Your task to perform on an android device: change keyboard looks Image 0: 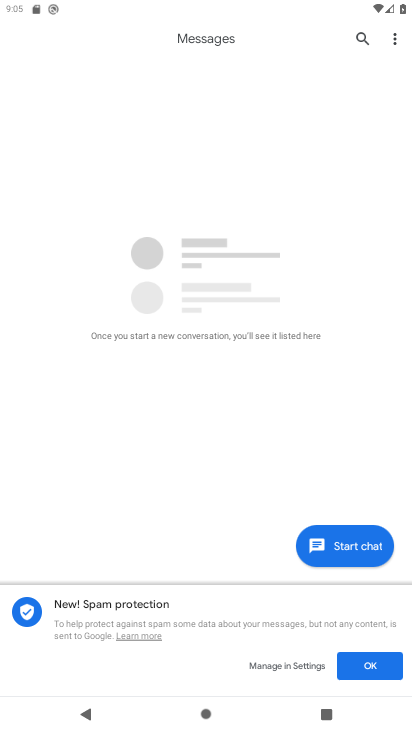
Step 0: press home button
Your task to perform on an android device: change keyboard looks Image 1: 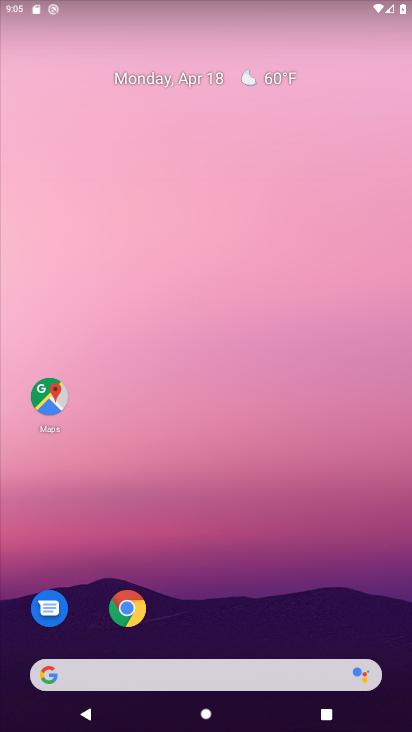
Step 1: drag from (371, 598) to (329, 67)
Your task to perform on an android device: change keyboard looks Image 2: 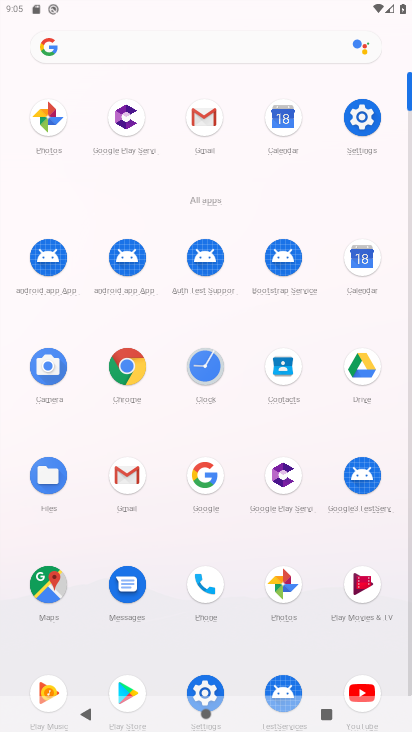
Step 2: click (367, 120)
Your task to perform on an android device: change keyboard looks Image 3: 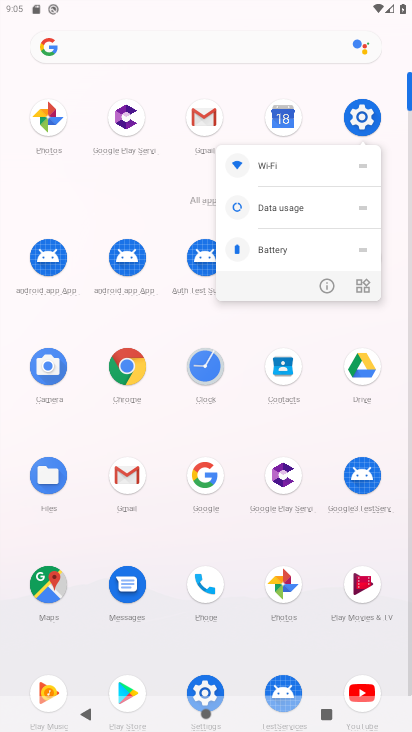
Step 3: click (367, 122)
Your task to perform on an android device: change keyboard looks Image 4: 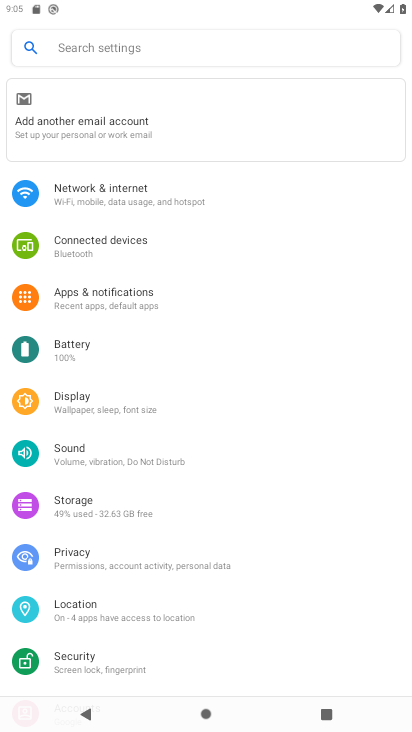
Step 4: drag from (217, 629) to (275, 249)
Your task to perform on an android device: change keyboard looks Image 5: 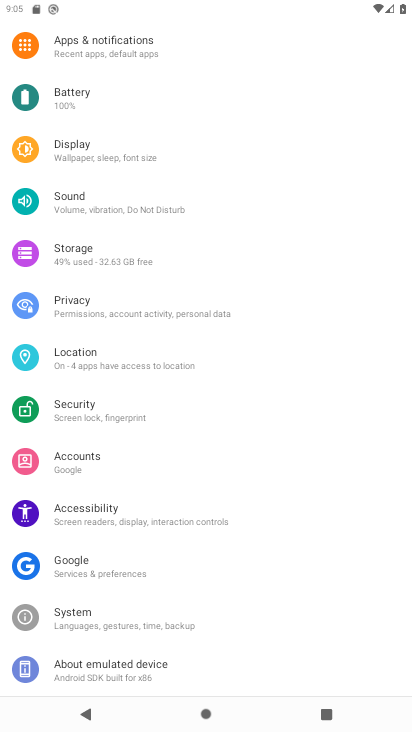
Step 5: click (108, 617)
Your task to perform on an android device: change keyboard looks Image 6: 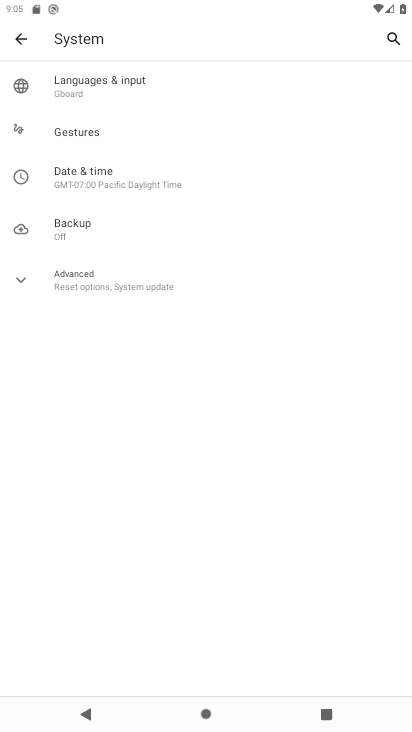
Step 6: click (117, 79)
Your task to perform on an android device: change keyboard looks Image 7: 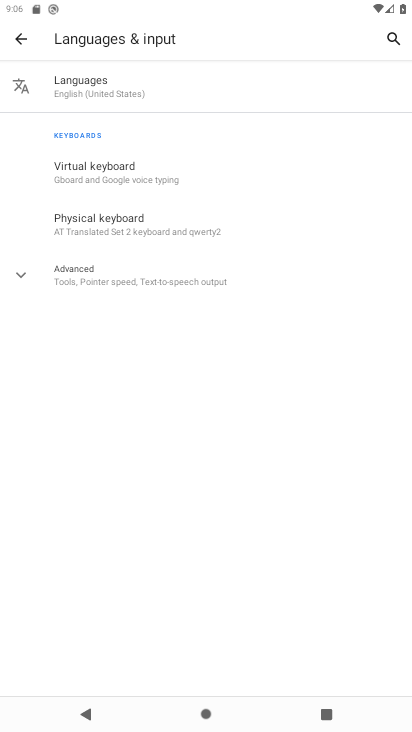
Step 7: click (137, 172)
Your task to perform on an android device: change keyboard looks Image 8: 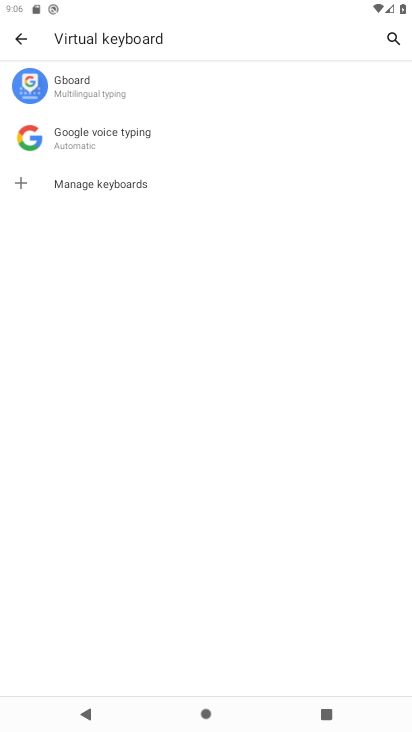
Step 8: click (118, 88)
Your task to perform on an android device: change keyboard looks Image 9: 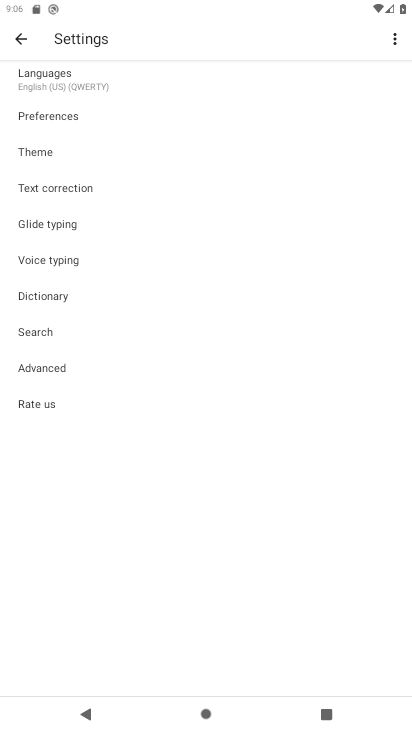
Step 9: click (55, 158)
Your task to perform on an android device: change keyboard looks Image 10: 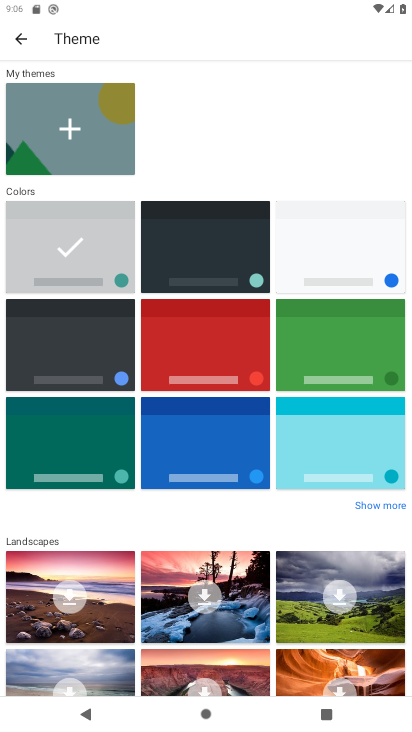
Step 10: click (212, 258)
Your task to perform on an android device: change keyboard looks Image 11: 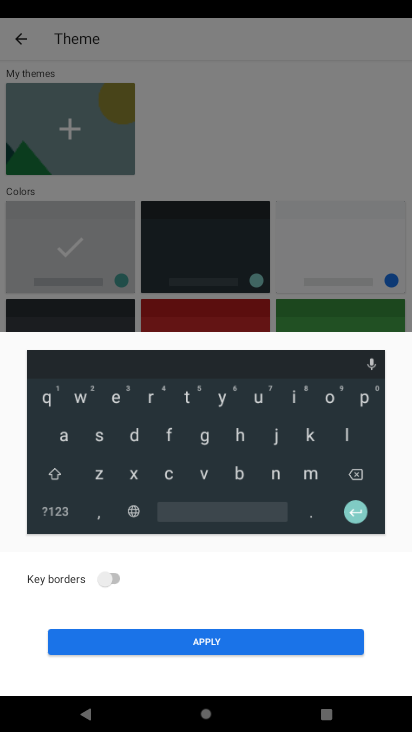
Step 11: click (218, 640)
Your task to perform on an android device: change keyboard looks Image 12: 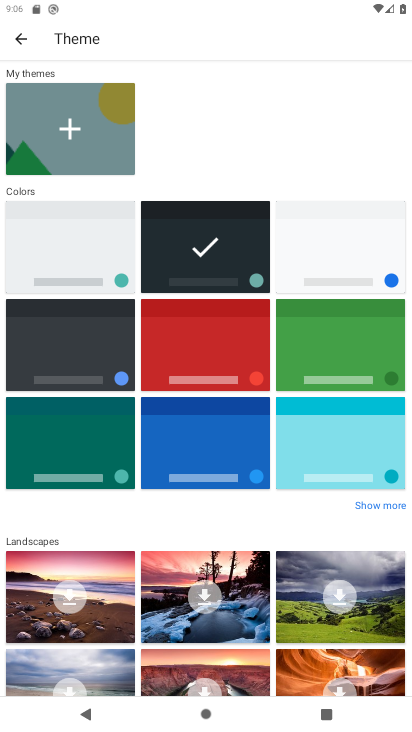
Step 12: task complete